Your task to perform on an android device: Is it going to rain today? Image 0: 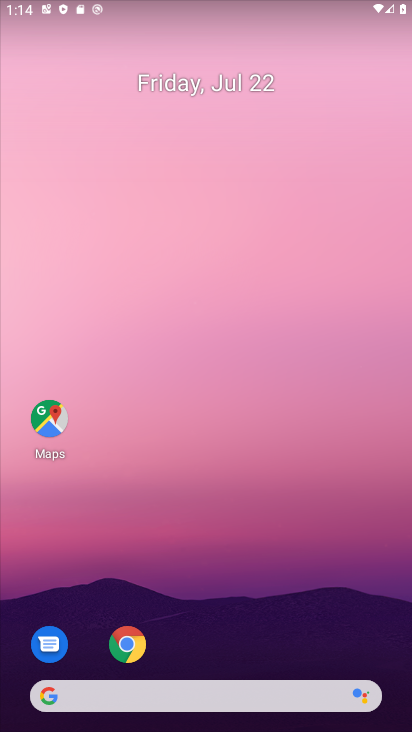
Step 0: press home button
Your task to perform on an android device: Is it going to rain today? Image 1: 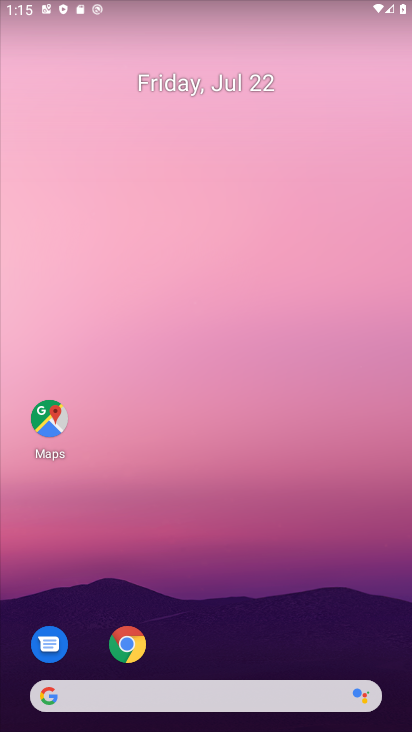
Step 1: drag from (216, 654) to (204, 7)
Your task to perform on an android device: Is it going to rain today? Image 2: 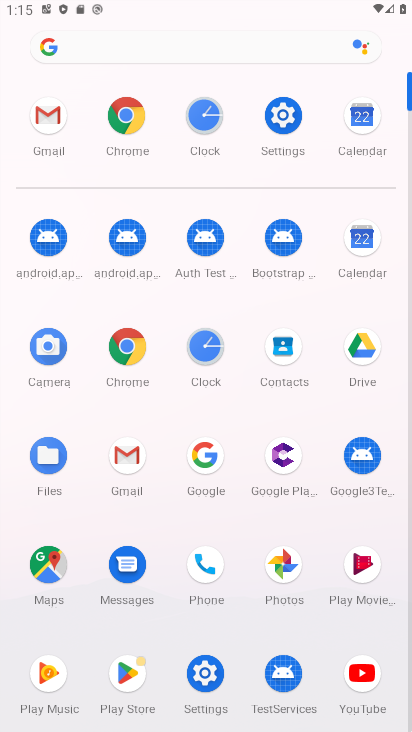
Step 2: click (161, 47)
Your task to perform on an android device: Is it going to rain today? Image 3: 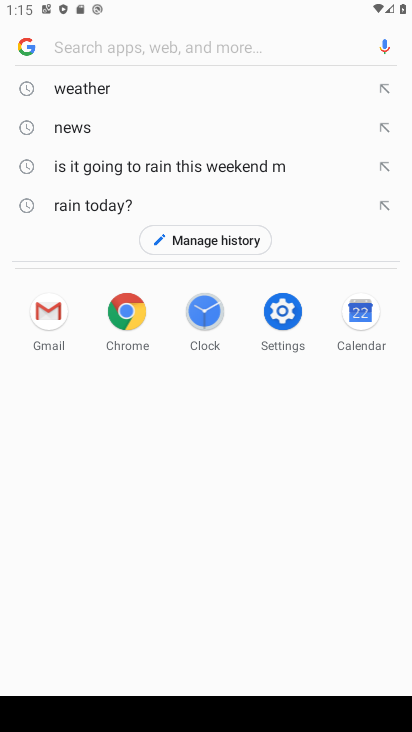
Step 3: type "we"
Your task to perform on an android device: Is it going to rain today? Image 4: 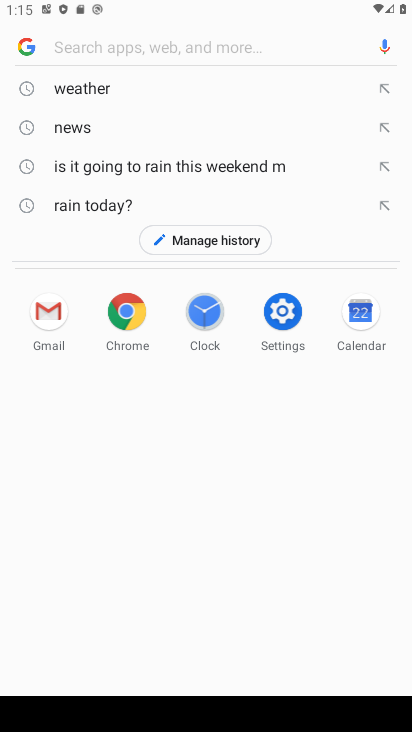
Step 4: click (100, 77)
Your task to perform on an android device: Is it going to rain today? Image 5: 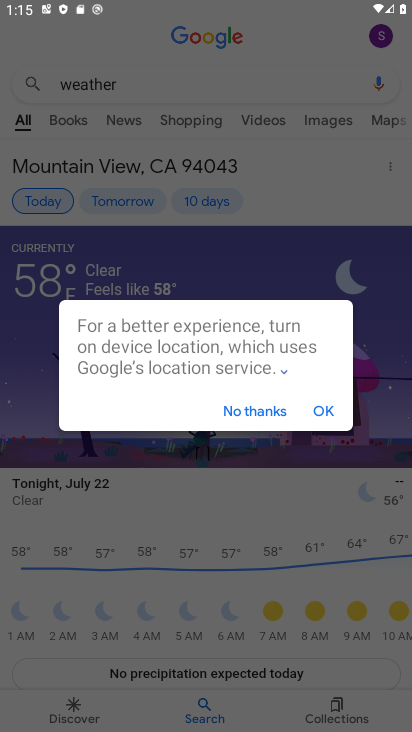
Step 5: drag from (335, 619) to (139, 583)
Your task to perform on an android device: Is it going to rain today? Image 6: 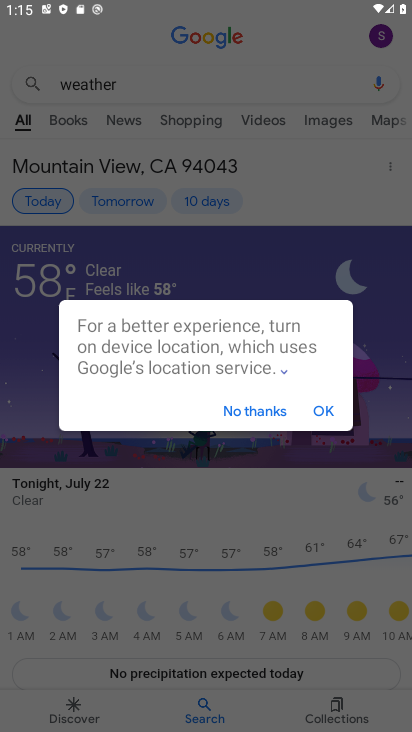
Step 6: click (320, 404)
Your task to perform on an android device: Is it going to rain today? Image 7: 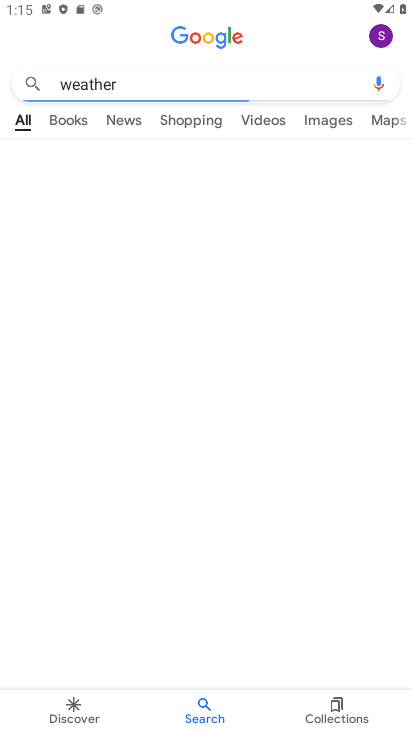
Step 7: task complete